Your task to perform on an android device: Clear the cart on costco.com. Search for "macbook air" on costco.com, select the first entry, and add it to the cart. Image 0: 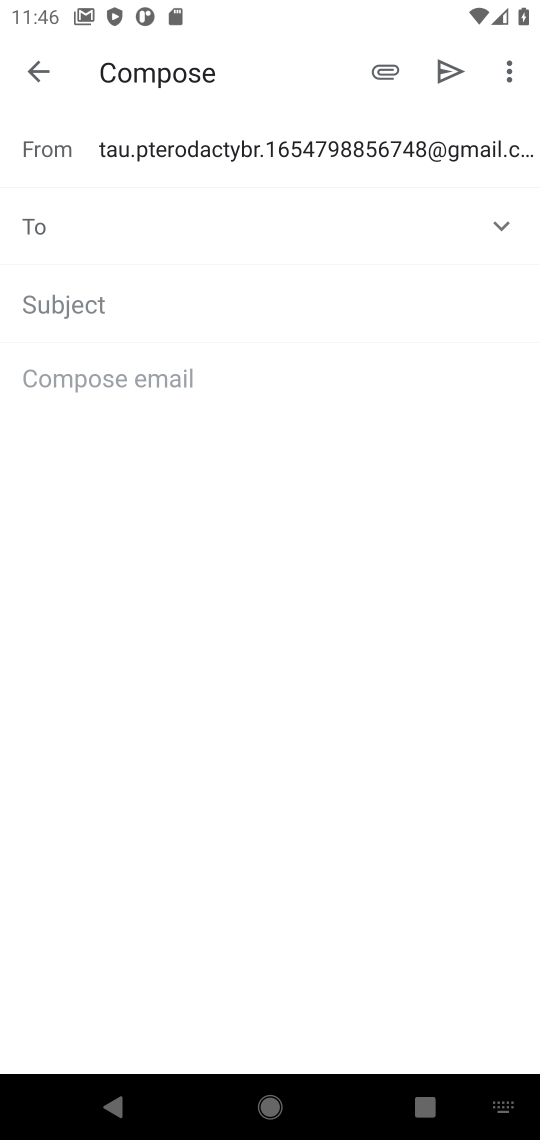
Step 0: press home button
Your task to perform on an android device: Clear the cart on costco.com. Search for "macbook air" on costco.com, select the first entry, and add it to the cart. Image 1: 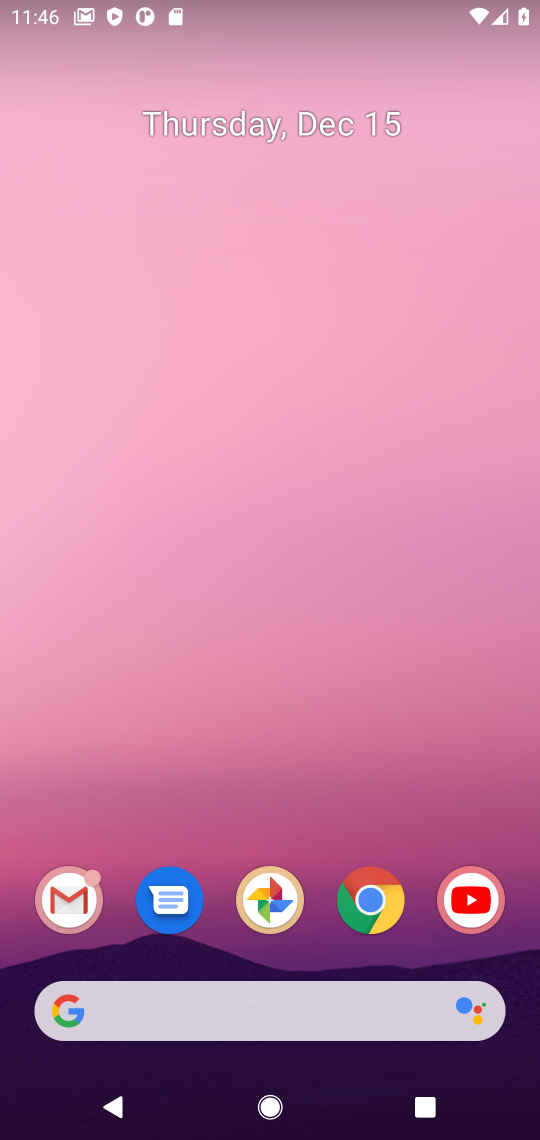
Step 1: click (377, 894)
Your task to perform on an android device: Clear the cart on costco.com. Search for "macbook air" on costco.com, select the first entry, and add it to the cart. Image 2: 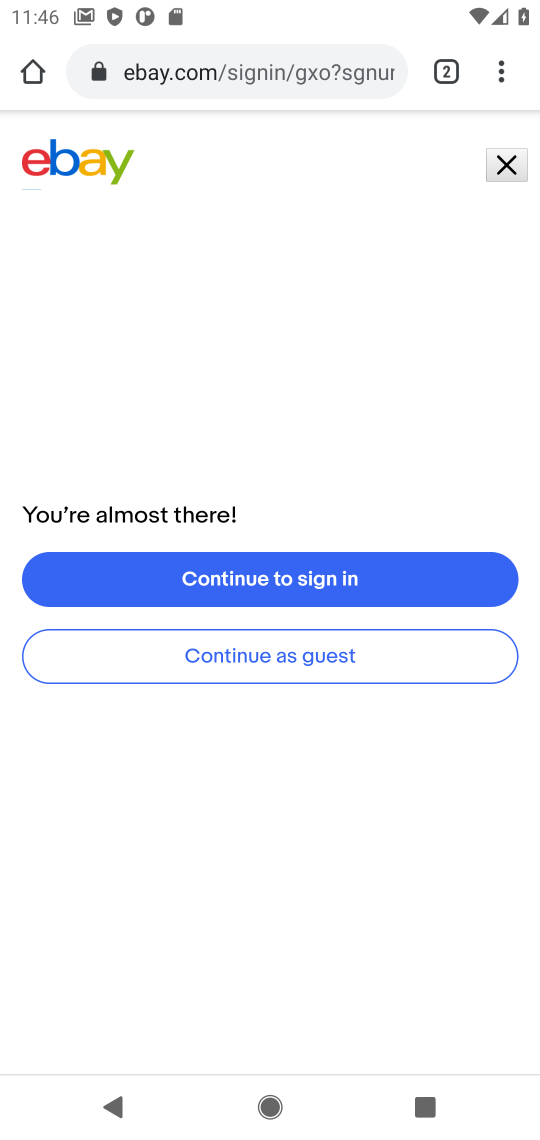
Step 2: click (354, 75)
Your task to perform on an android device: Clear the cart on costco.com. Search for "macbook air" on costco.com, select the first entry, and add it to the cart. Image 3: 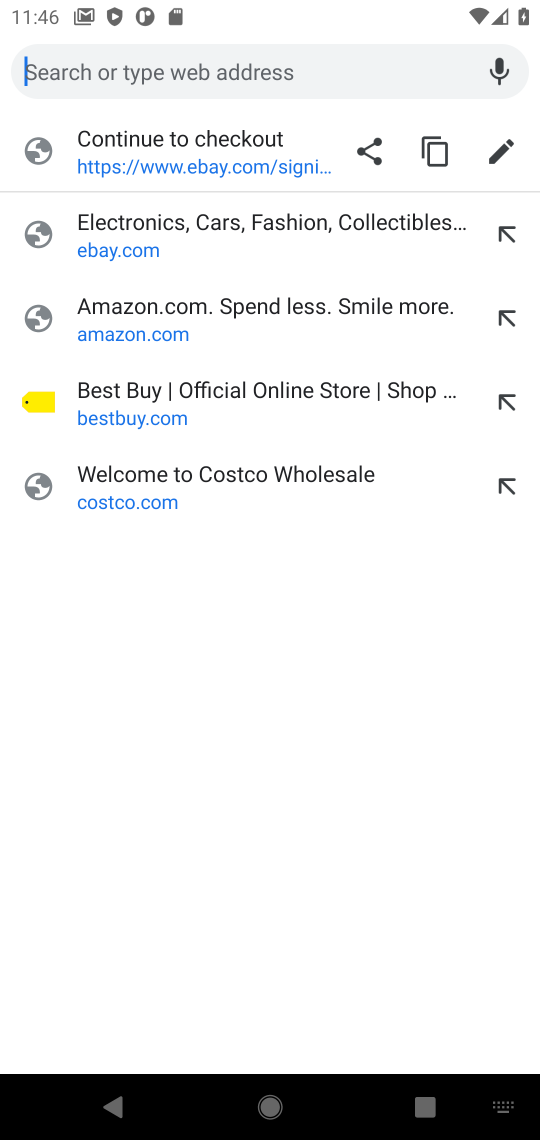
Step 3: click (166, 478)
Your task to perform on an android device: Clear the cart on costco.com. Search for "macbook air" on costco.com, select the first entry, and add it to the cart. Image 4: 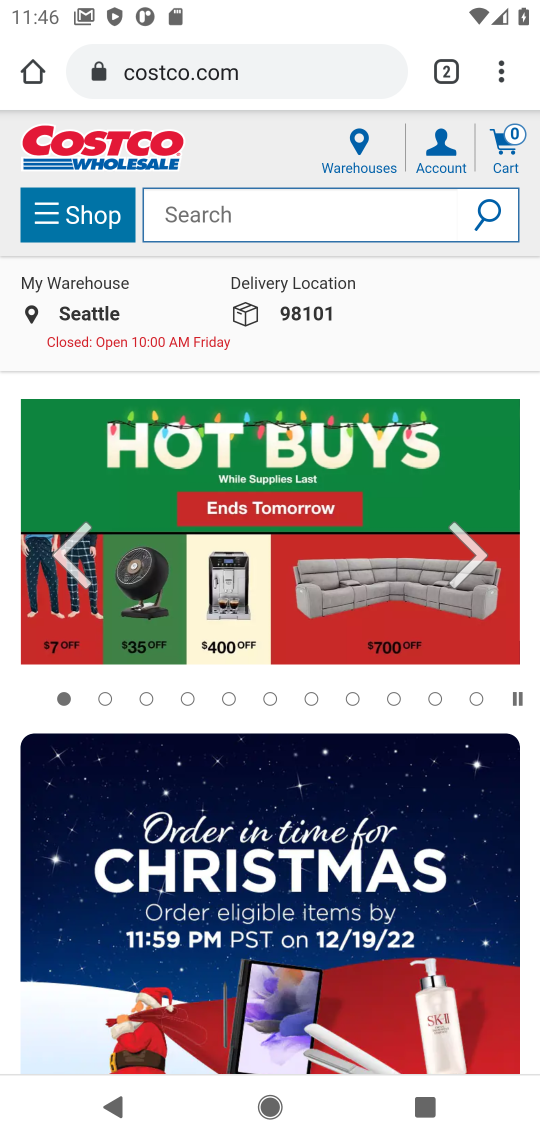
Step 4: click (513, 143)
Your task to perform on an android device: Clear the cart on costco.com. Search for "macbook air" on costco.com, select the first entry, and add it to the cart. Image 5: 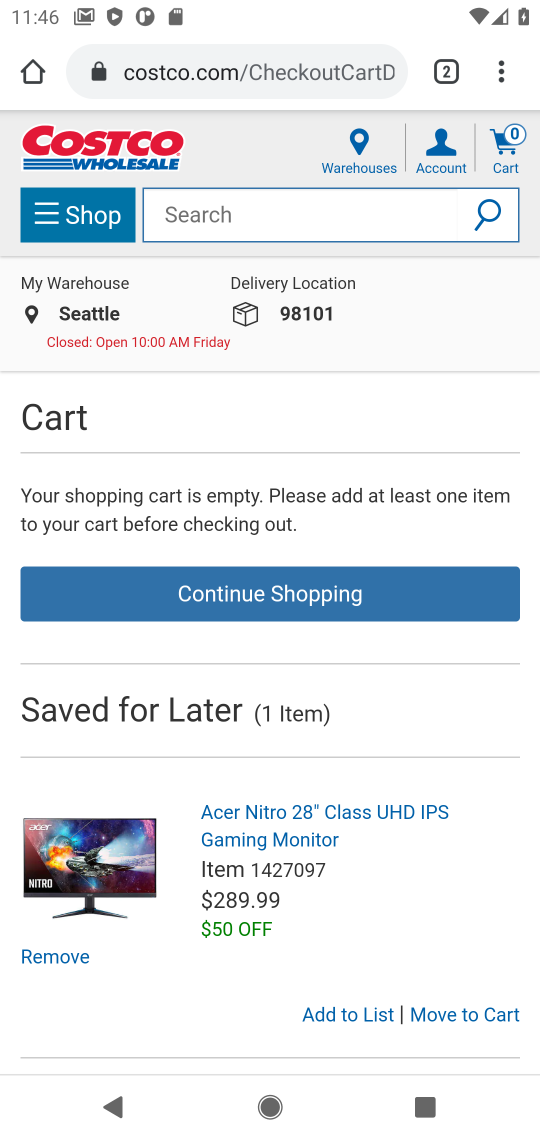
Step 5: click (400, 218)
Your task to perform on an android device: Clear the cart on costco.com. Search for "macbook air" on costco.com, select the first entry, and add it to the cart. Image 6: 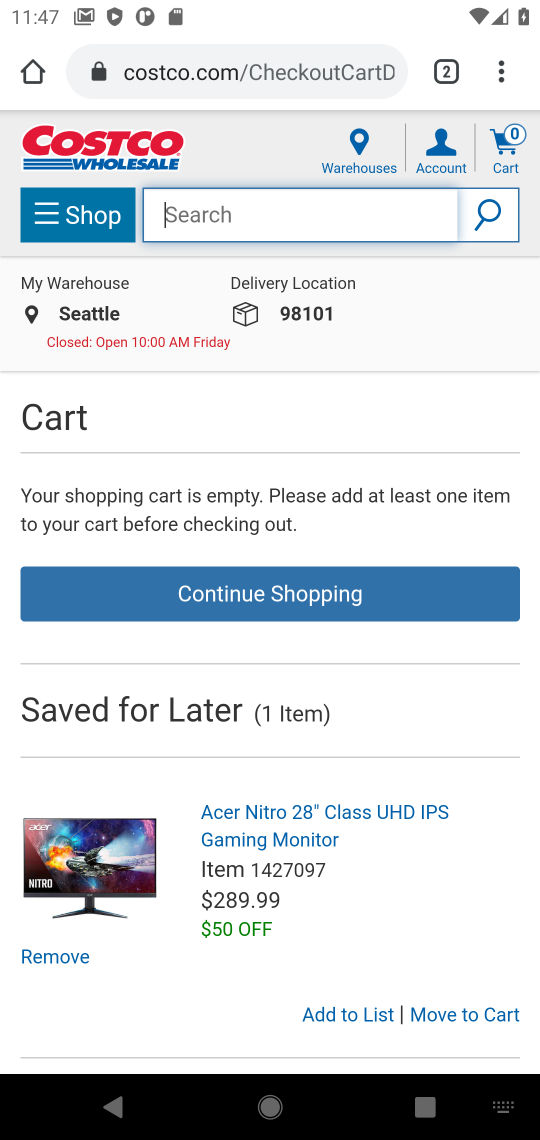
Step 6: press enter
Your task to perform on an android device: Clear the cart on costco.com. Search for "macbook air" on costco.com, select the first entry, and add it to the cart. Image 7: 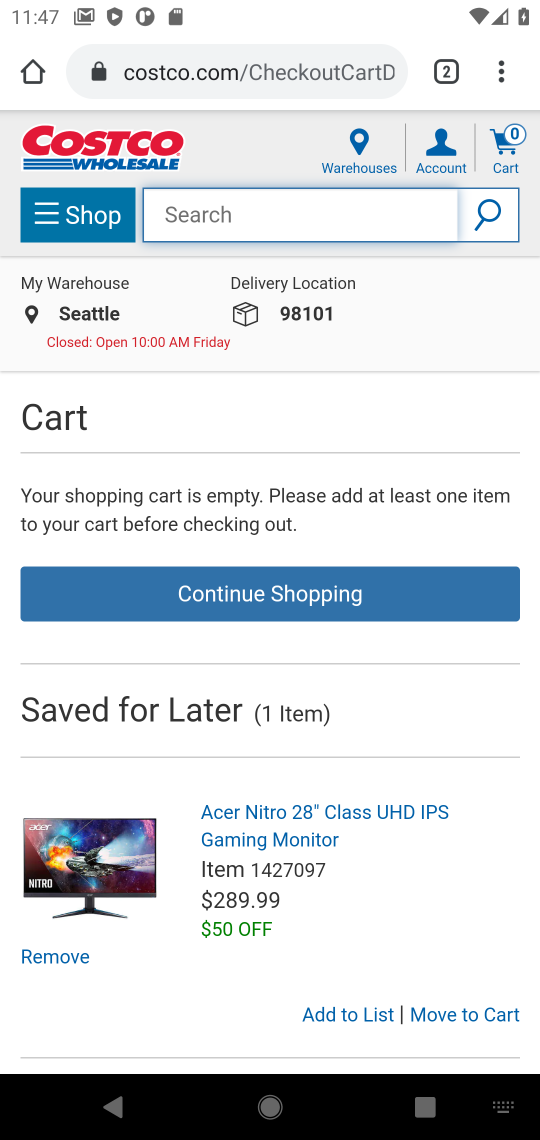
Step 7: type "macbook air"
Your task to perform on an android device: Clear the cart on costco.com. Search for "macbook air" on costco.com, select the first entry, and add it to the cart. Image 8: 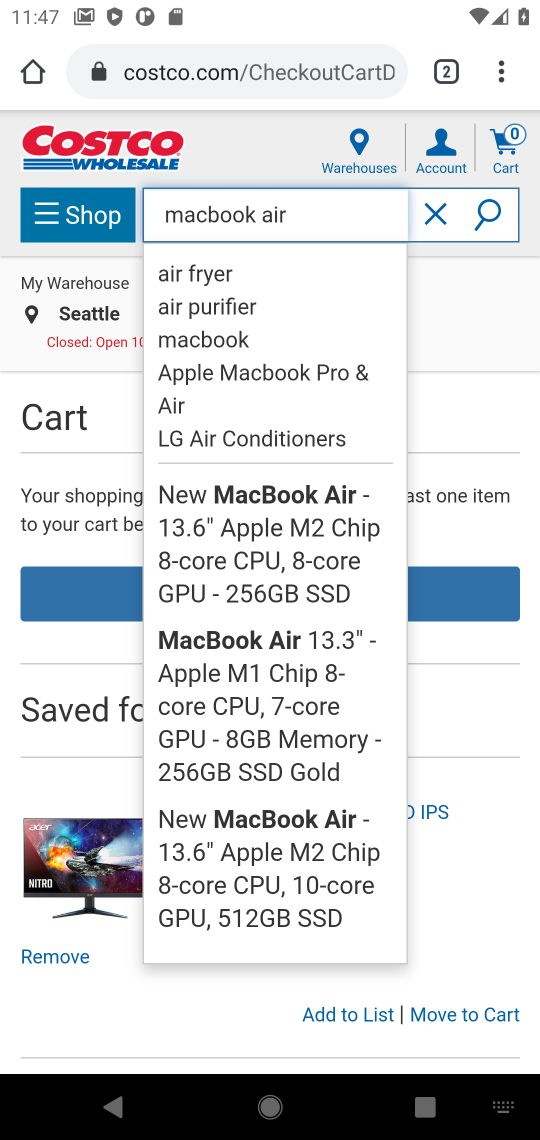
Step 8: click (492, 208)
Your task to perform on an android device: Clear the cart on costco.com. Search for "macbook air" on costco.com, select the first entry, and add it to the cart. Image 9: 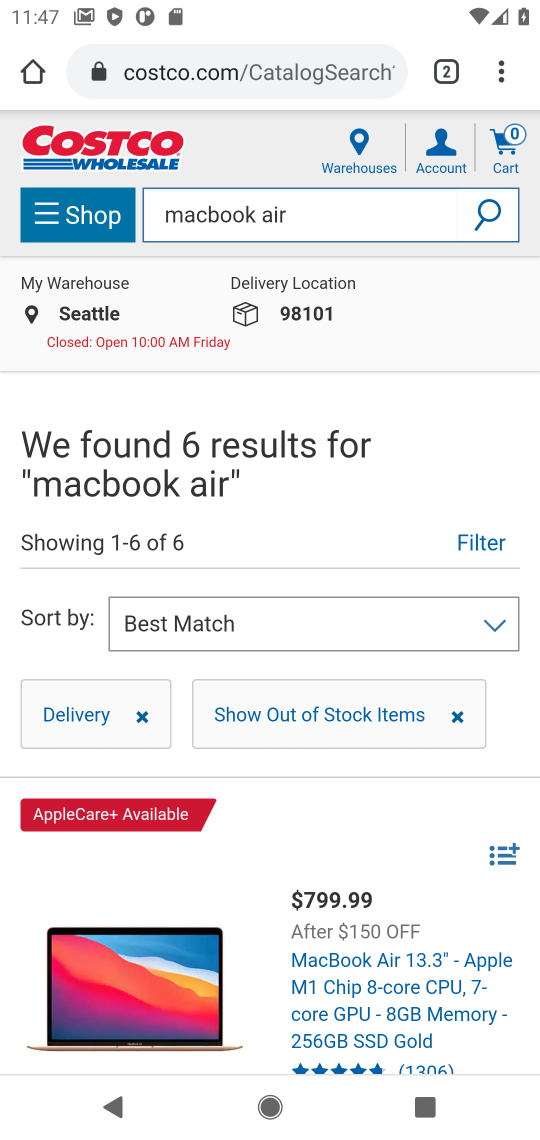
Step 9: click (154, 962)
Your task to perform on an android device: Clear the cart on costco.com. Search for "macbook air" on costco.com, select the first entry, and add it to the cart. Image 10: 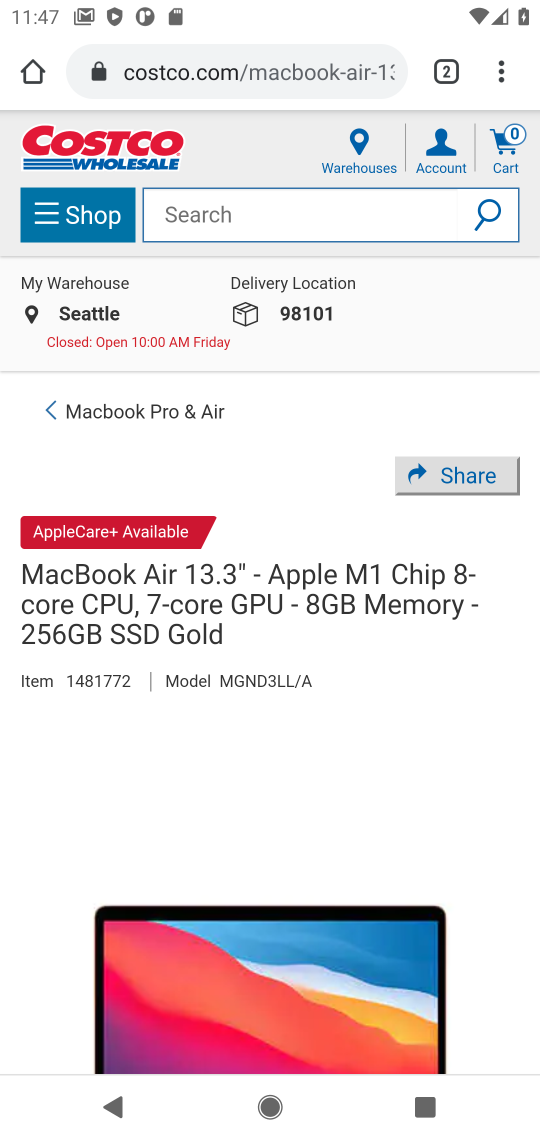
Step 10: drag from (341, 965) to (434, 100)
Your task to perform on an android device: Clear the cart on costco.com. Search for "macbook air" on costco.com, select the first entry, and add it to the cart. Image 11: 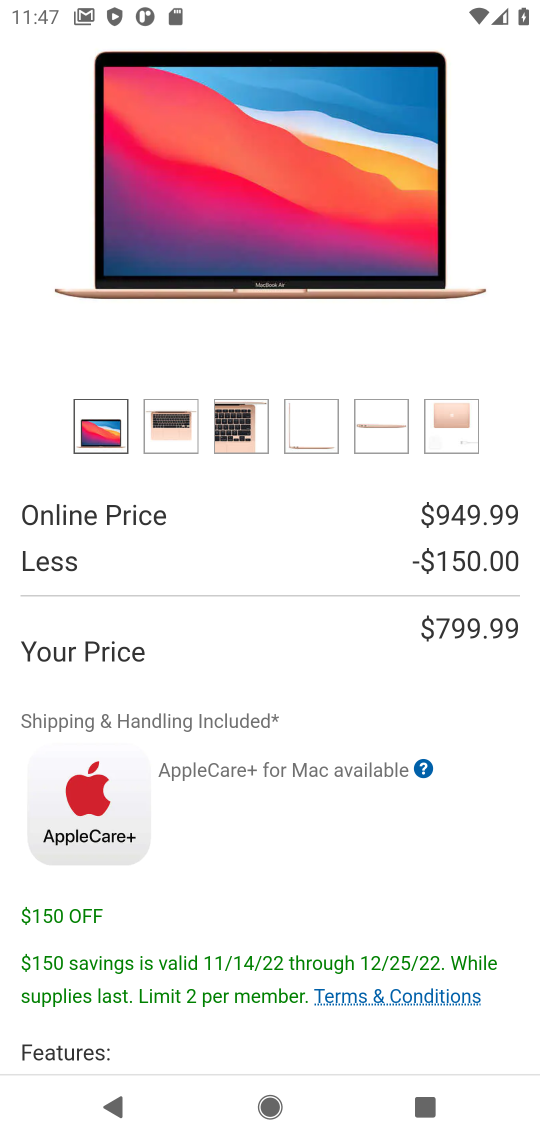
Step 11: drag from (411, 921) to (462, 240)
Your task to perform on an android device: Clear the cart on costco.com. Search for "macbook air" on costco.com, select the first entry, and add it to the cart. Image 12: 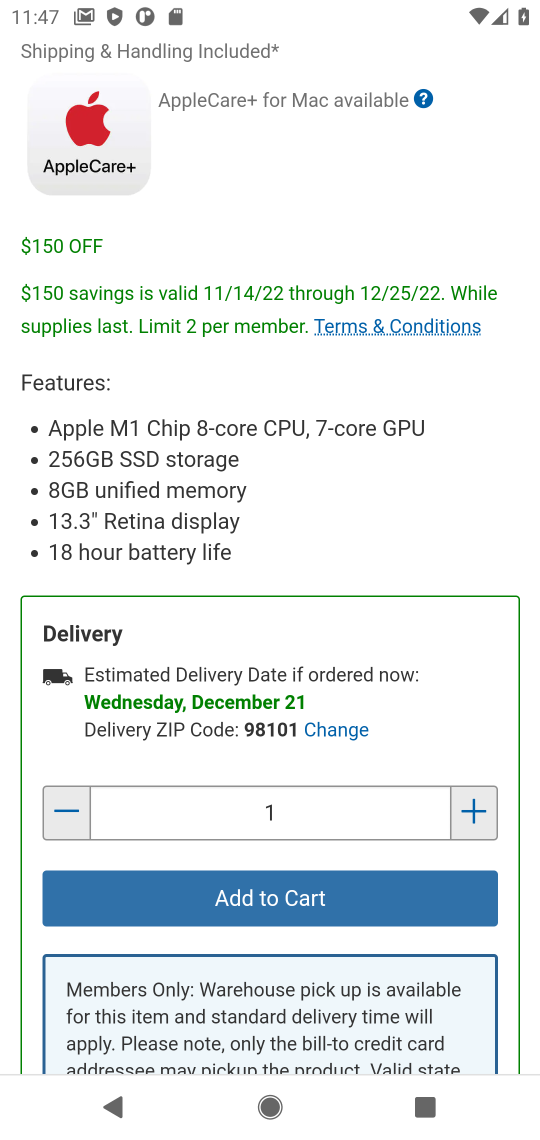
Step 12: click (297, 892)
Your task to perform on an android device: Clear the cart on costco.com. Search for "macbook air" on costco.com, select the first entry, and add it to the cart. Image 13: 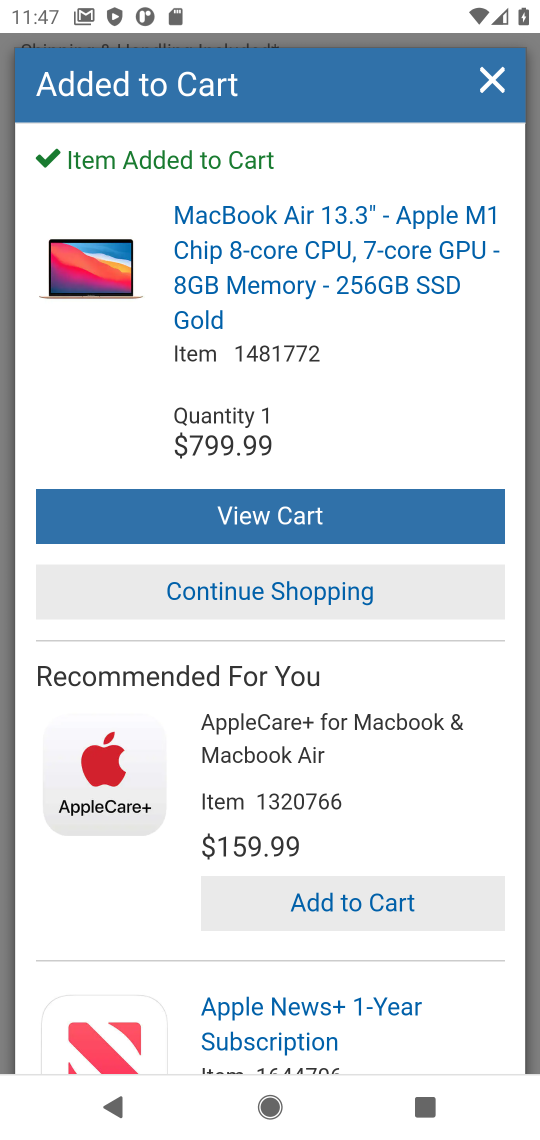
Step 13: task complete